Your task to perform on an android device: Open internet settings Image 0: 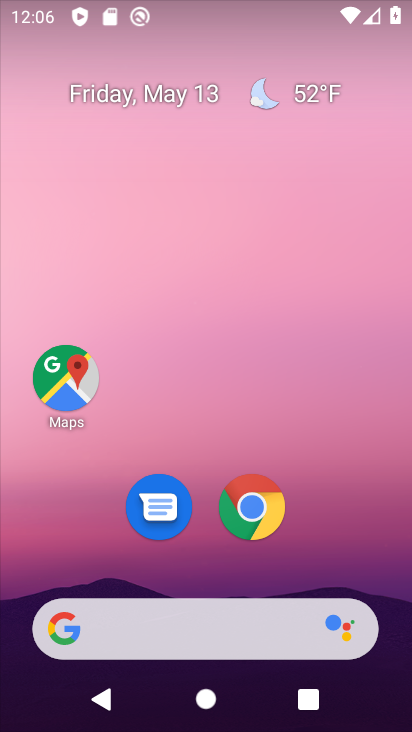
Step 0: drag from (201, 575) to (215, 235)
Your task to perform on an android device: Open internet settings Image 1: 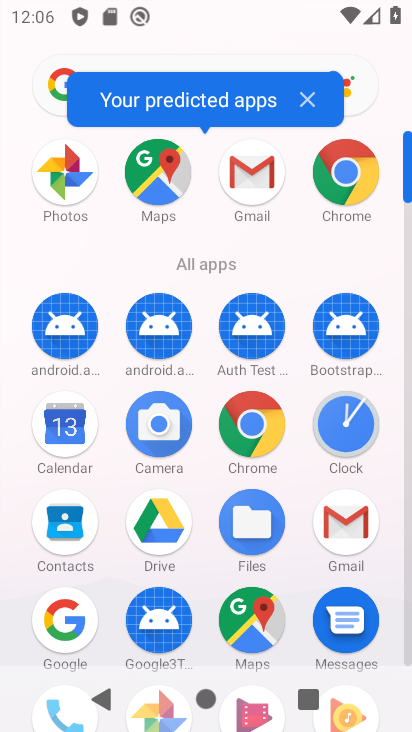
Step 1: drag from (200, 586) to (221, 225)
Your task to perform on an android device: Open internet settings Image 2: 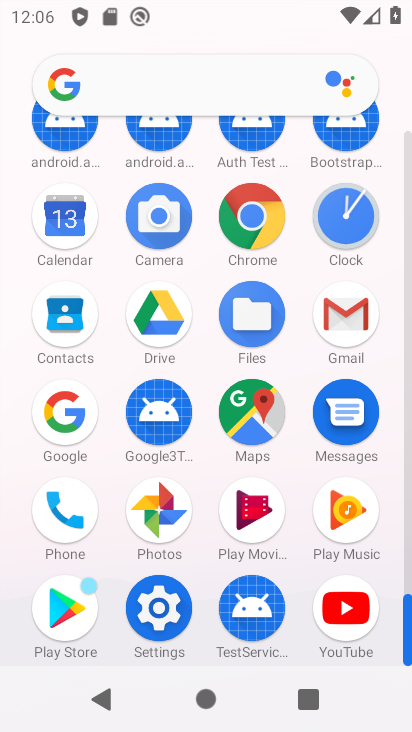
Step 2: click (157, 597)
Your task to perform on an android device: Open internet settings Image 3: 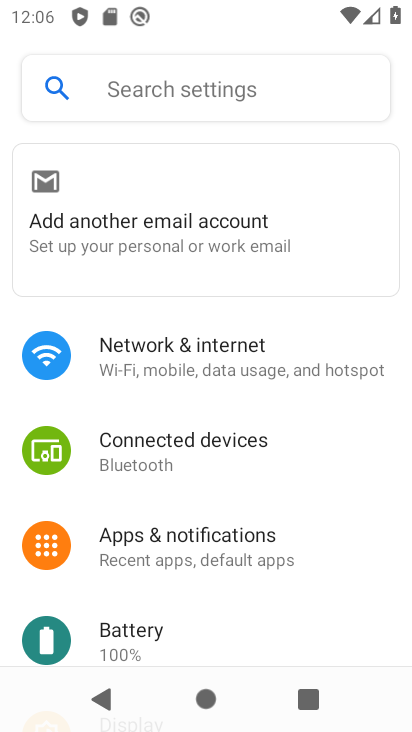
Step 3: click (241, 360)
Your task to perform on an android device: Open internet settings Image 4: 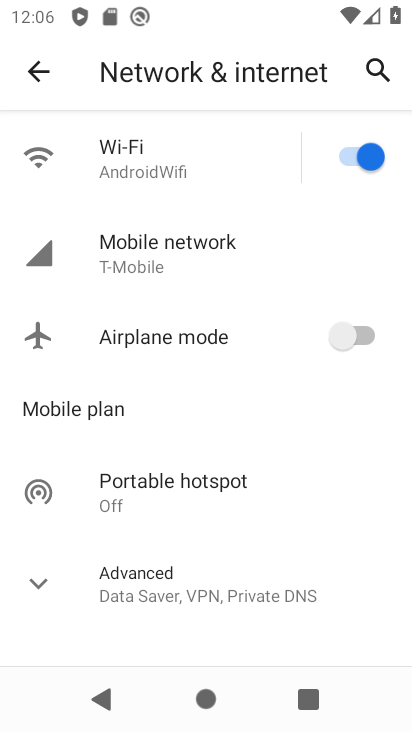
Step 4: click (181, 587)
Your task to perform on an android device: Open internet settings Image 5: 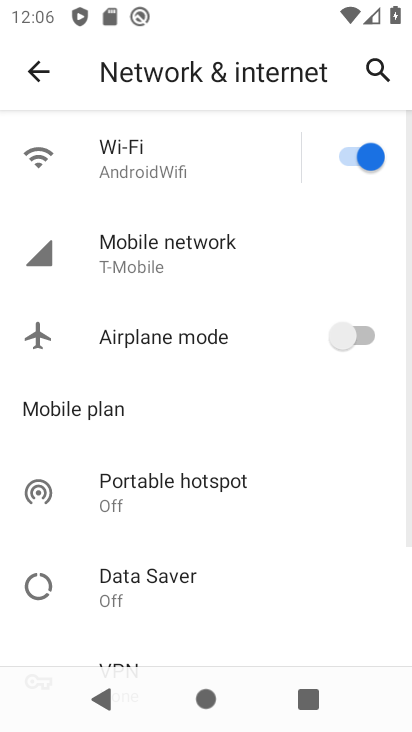
Step 5: task complete